Your task to perform on an android device: read, delete, or share a saved page in the chrome app Image 0: 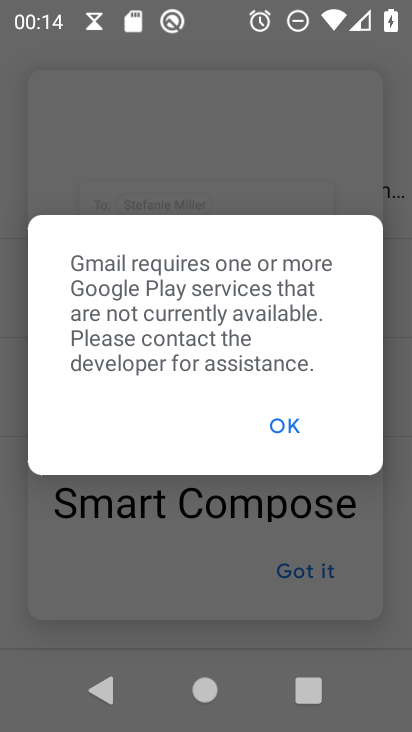
Step 0: press home button
Your task to perform on an android device: read, delete, or share a saved page in the chrome app Image 1: 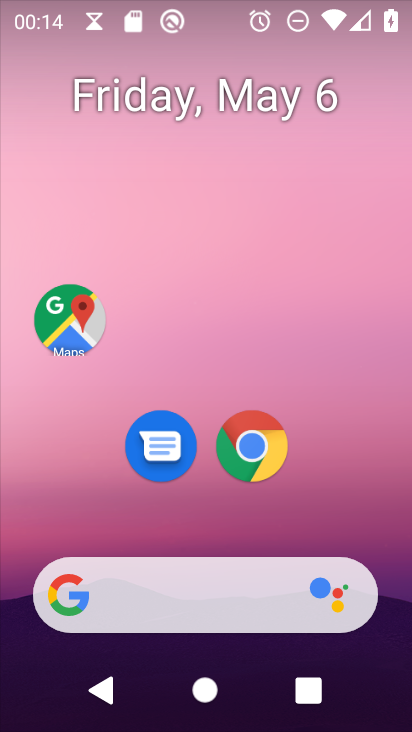
Step 1: drag from (233, 636) to (332, 184)
Your task to perform on an android device: read, delete, or share a saved page in the chrome app Image 2: 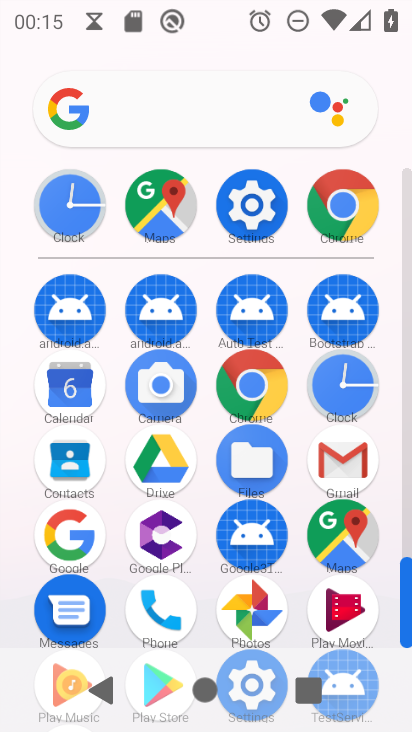
Step 2: click (357, 225)
Your task to perform on an android device: read, delete, or share a saved page in the chrome app Image 3: 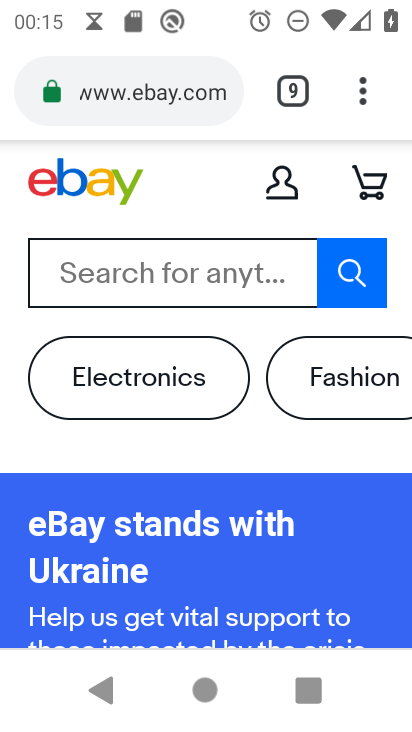
Step 3: click (373, 104)
Your task to perform on an android device: read, delete, or share a saved page in the chrome app Image 4: 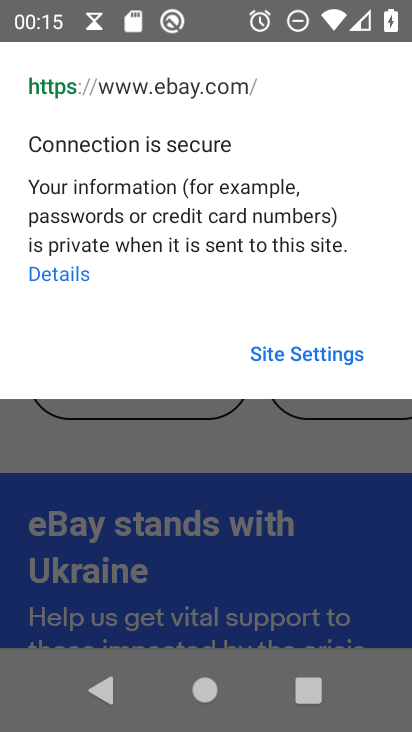
Step 4: click (219, 429)
Your task to perform on an android device: read, delete, or share a saved page in the chrome app Image 5: 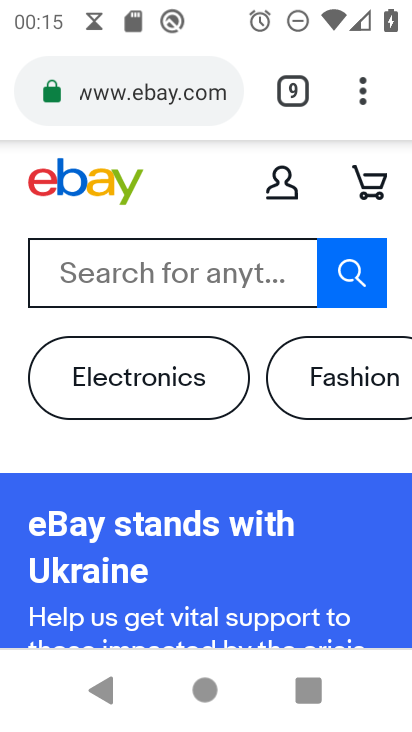
Step 5: click (372, 119)
Your task to perform on an android device: read, delete, or share a saved page in the chrome app Image 6: 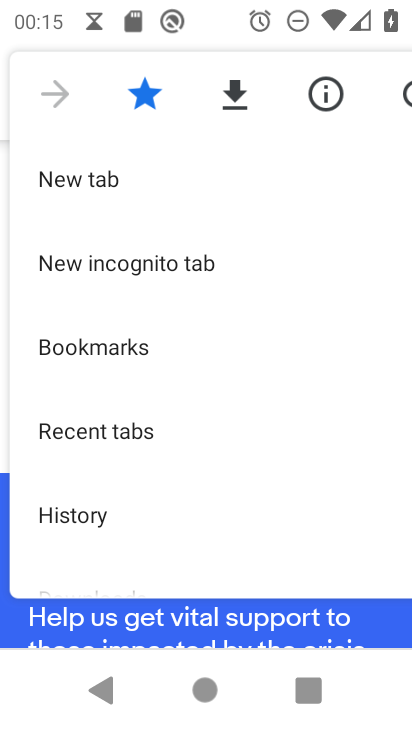
Step 6: drag from (144, 501) to (247, 219)
Your task to perform on an android device: read, delete, or share a saved page in the chrome app Image 7: 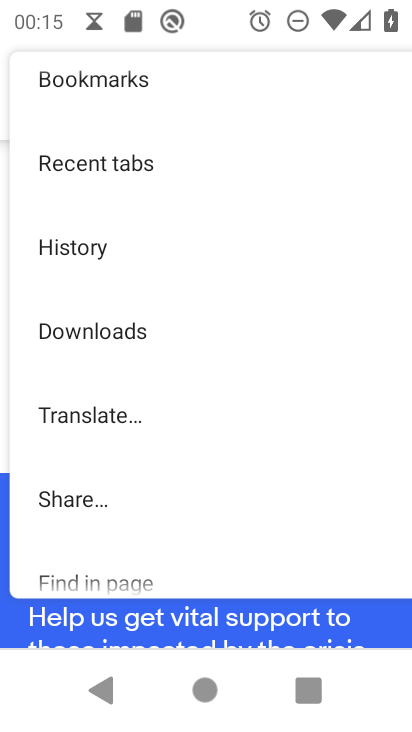
Step 7: click (94, 506)
Your task to perform on an android device: read, delete, or share a saved page in the chrome app Image 8: 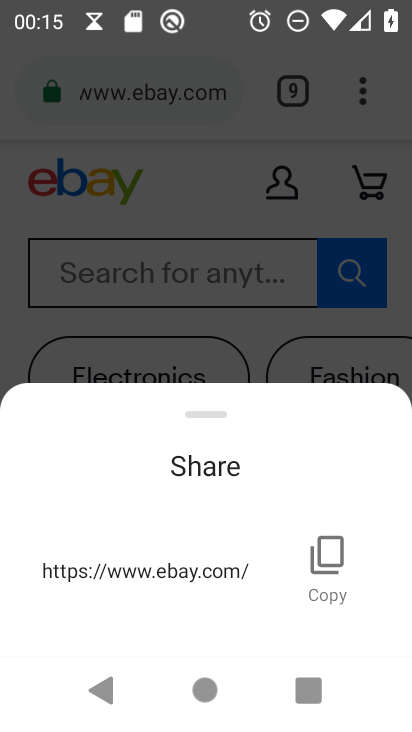
Step 8: task complete